Your task to perform on an android device: Go to Maps Image 0: 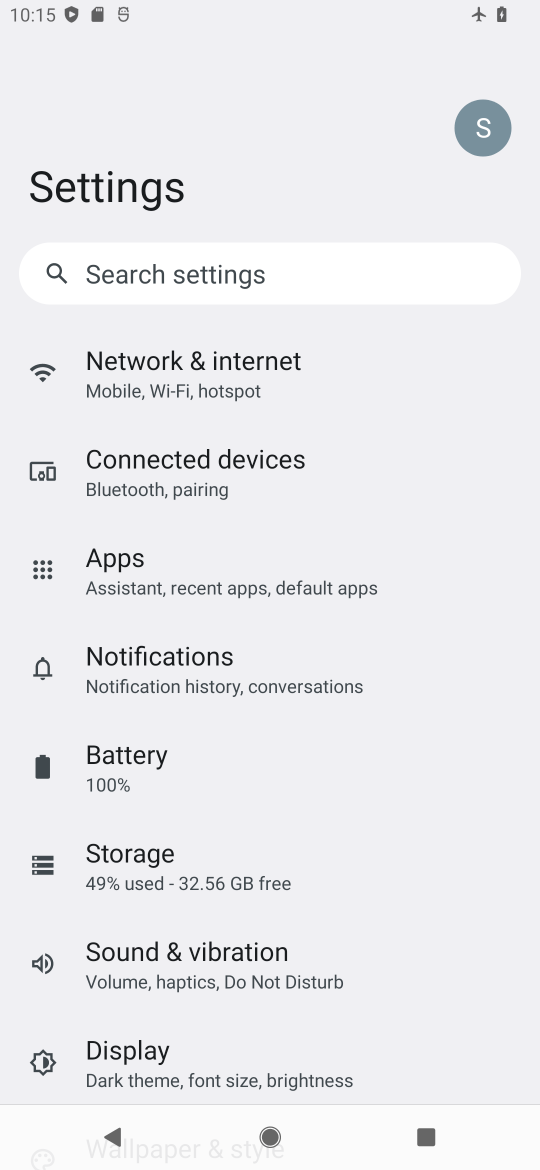
Step 0: press home button
Your task to perform on an android device: Go to Maps Image 1: 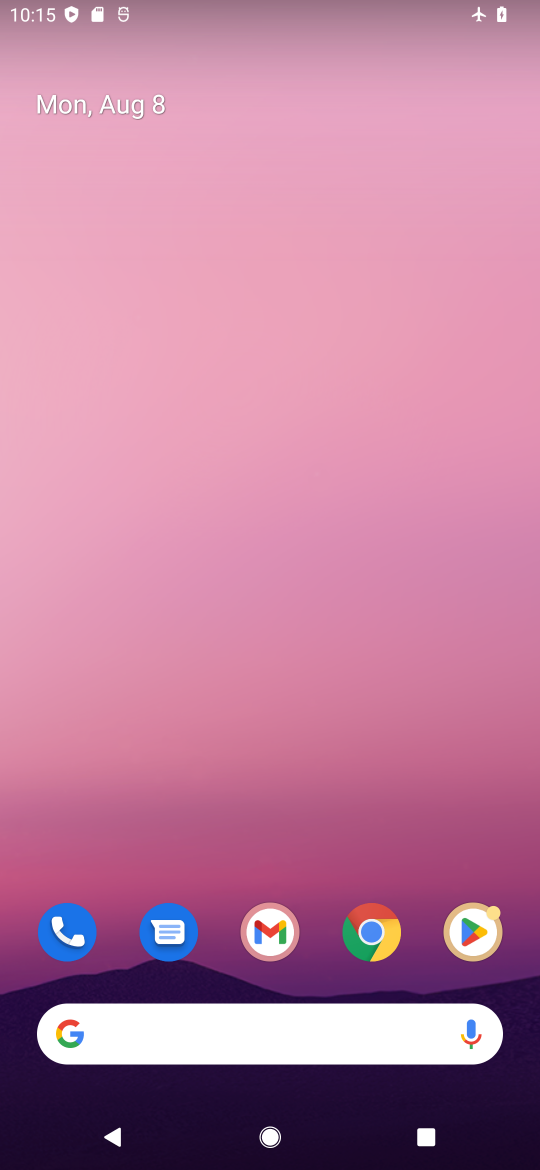
Step 1: drag from (274, 854) to (308, 121)
Your task to perform on an android device: Go to Maps Image 2: 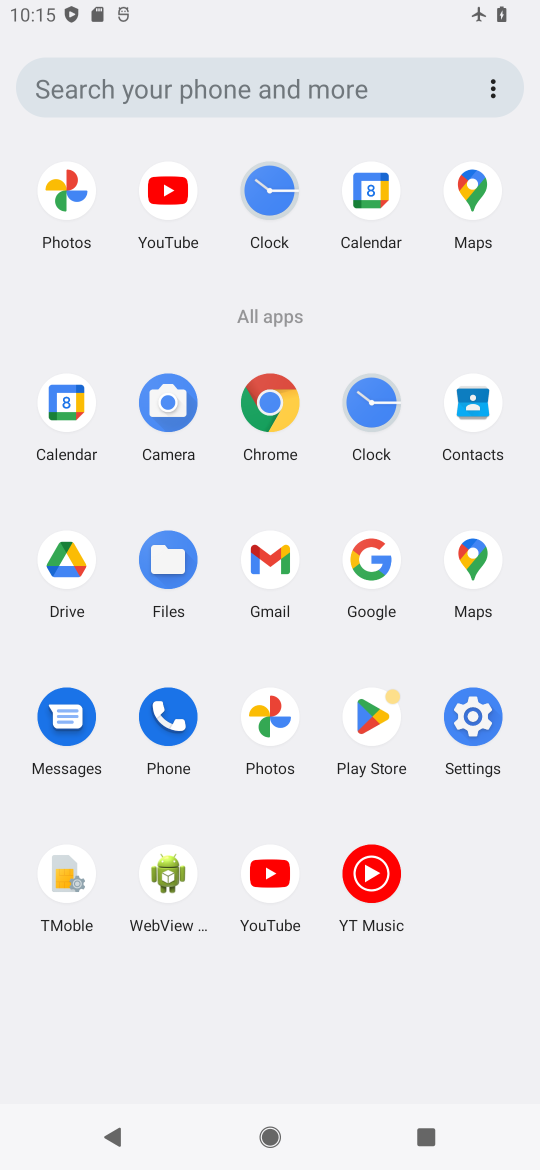
Step 2: click (485, 543)
Your task to perform on an android device: Go to Maps Image 3: 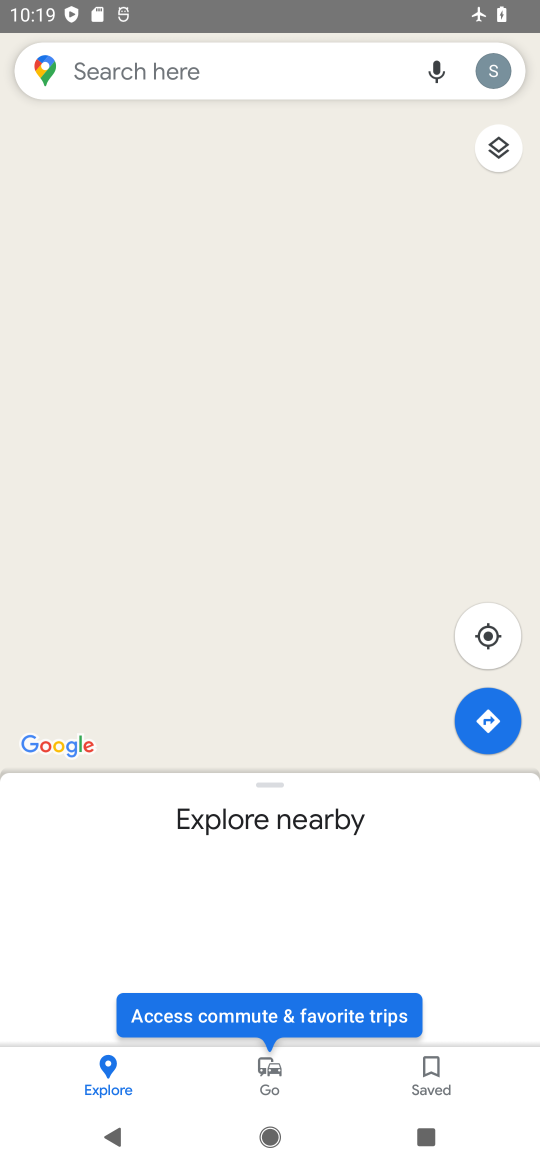
Step 3: drag from (241, 2) to (522, 1066)
Your task to perform on an android device: Go to Maps Image 4: 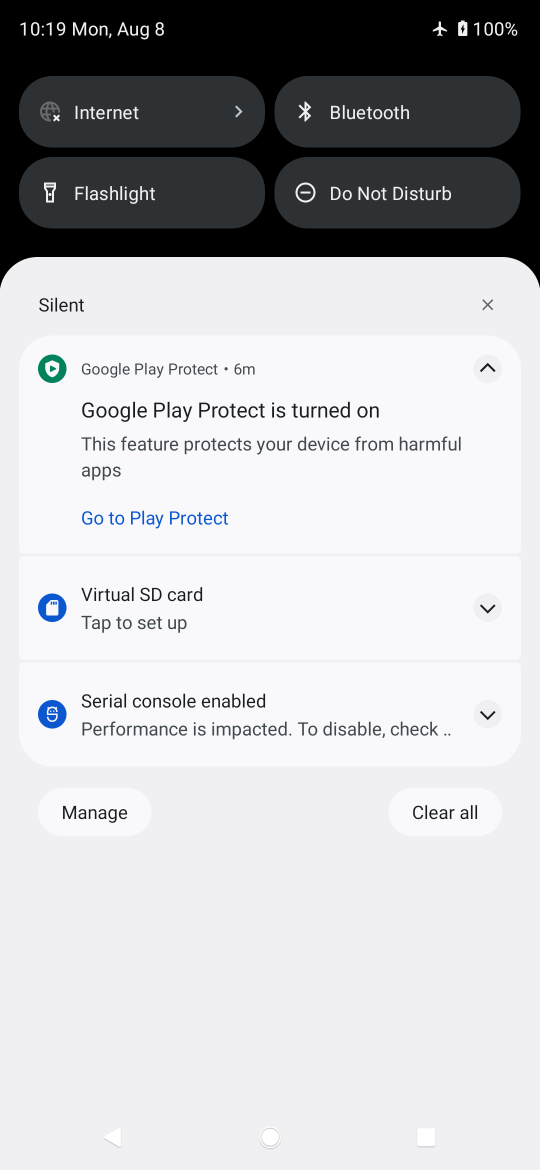
Step 4: drag from (278, 81) to (296, 938)
Your task to perform on an android device: Go to Maps Image 5: 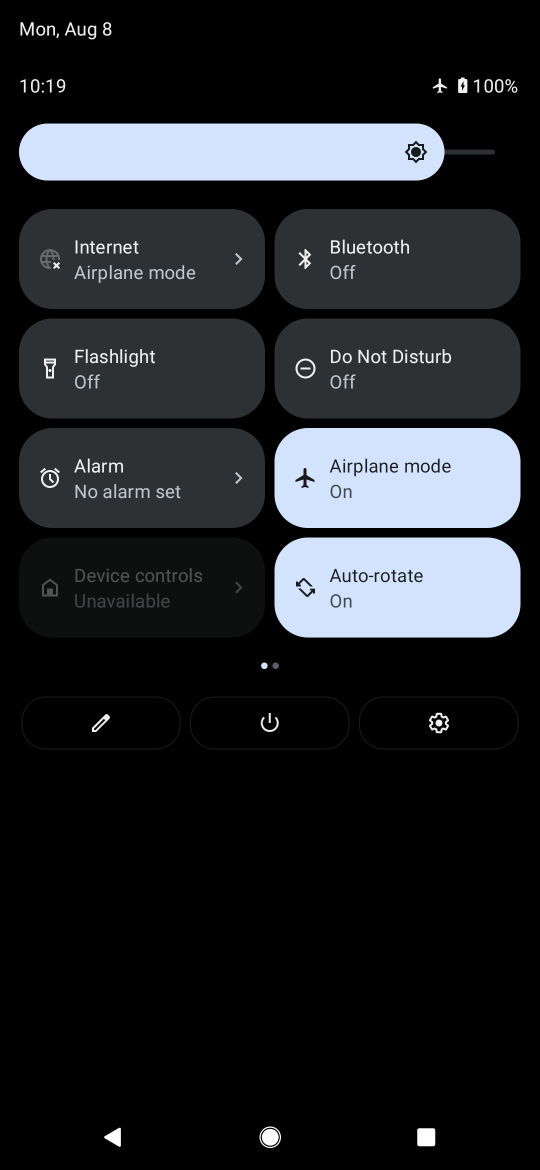
Step 5: click (312, 464)
Your task to perform on an android device: Go to Maps Image 6: 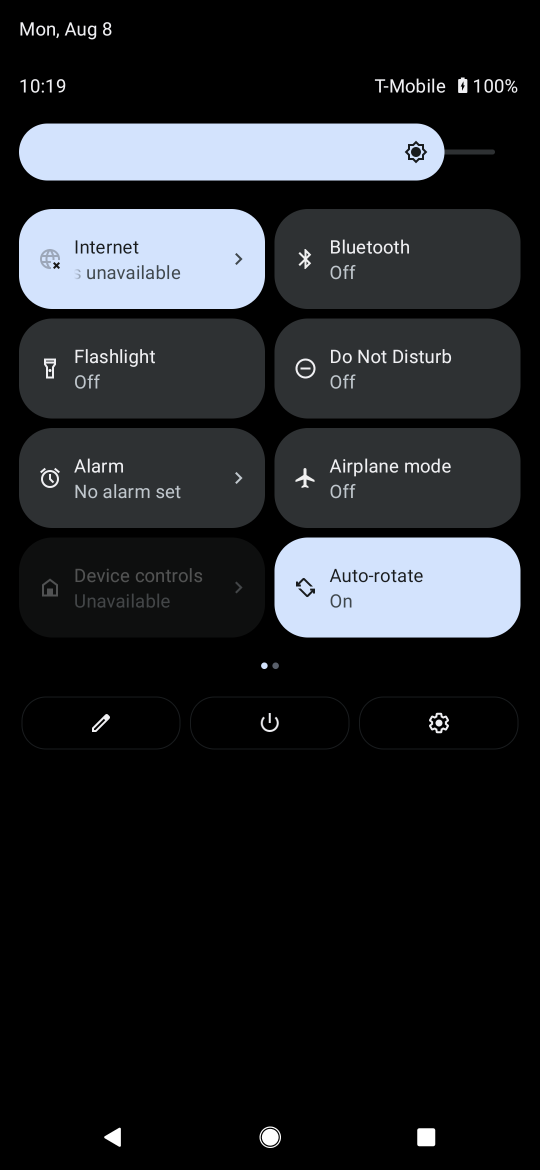
Step 6: task complete